Your task to perform on an android device: Go to Google maps Image 0: 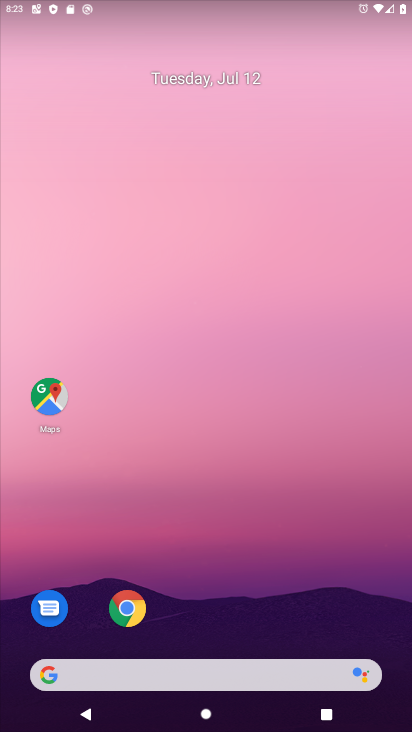
Step 0: click (47, 383)
Your task to perform on an android device: Go to Google maps Image 1: 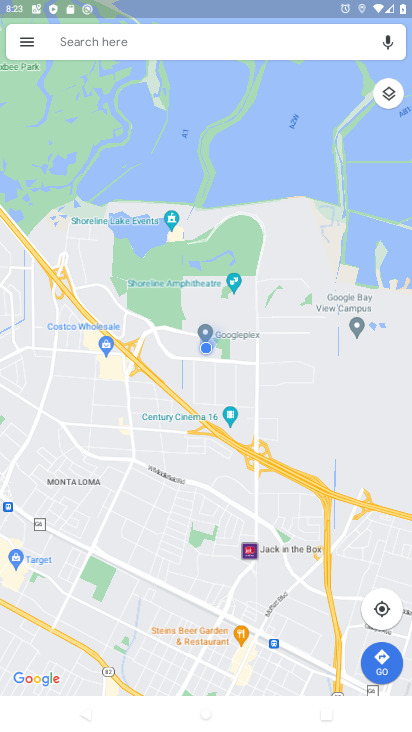
Step 1: task complete